Your task to perform on an android device: When is my next appointment? Image 0: 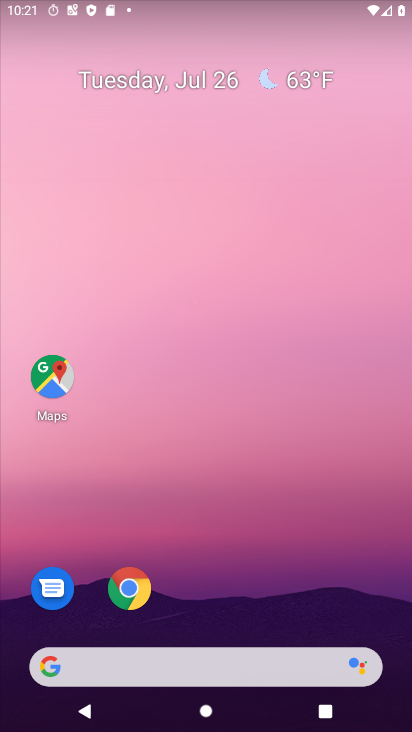
Step 0: click (112, 64)
Your task to perform on an android device: When is my next appointment? Image 1: 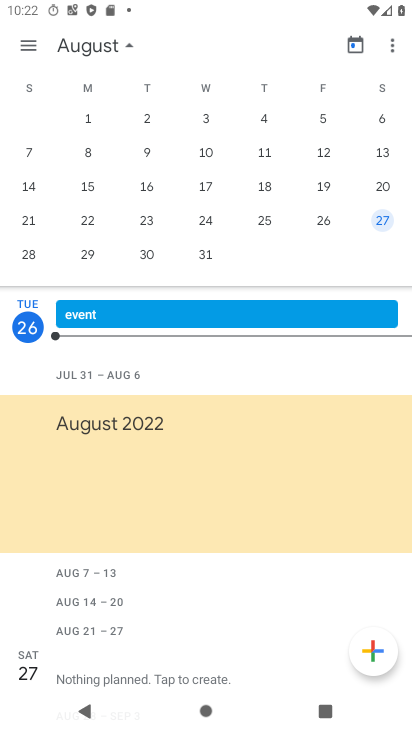
Step 1: drag from (17, 118) to (396, 116)
Your task to perform on an android device: When is my next appointment? Image 2: 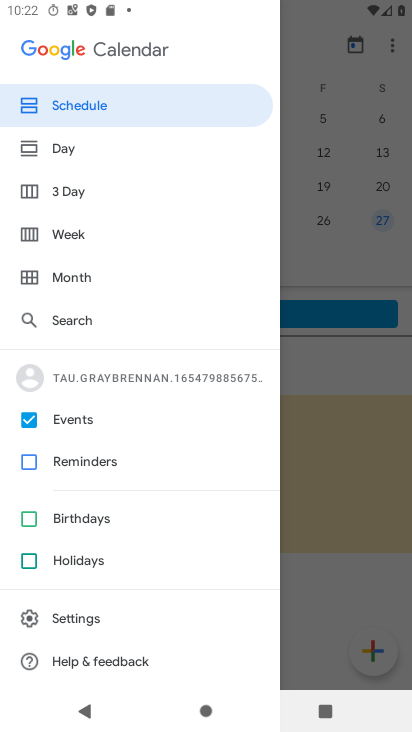
Step 2: click (396, 116)
Your task to perform on an android device: When is my next appointment? Image 3: 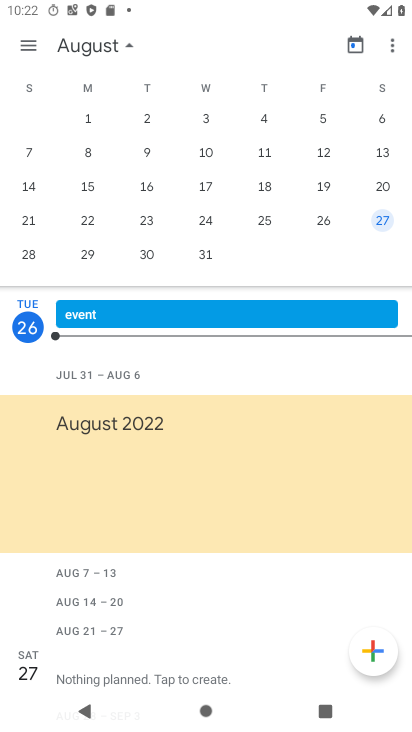
Step 3: click (376, 127)
Your task to perform on an android device: When is my next appointment? Image 4: 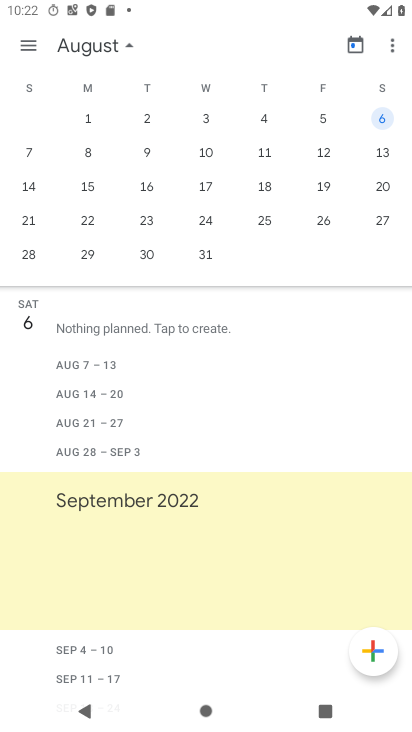
Step 4: task complete